Your task to perform on an android device: toggle data saver in the chrome app Image 0: 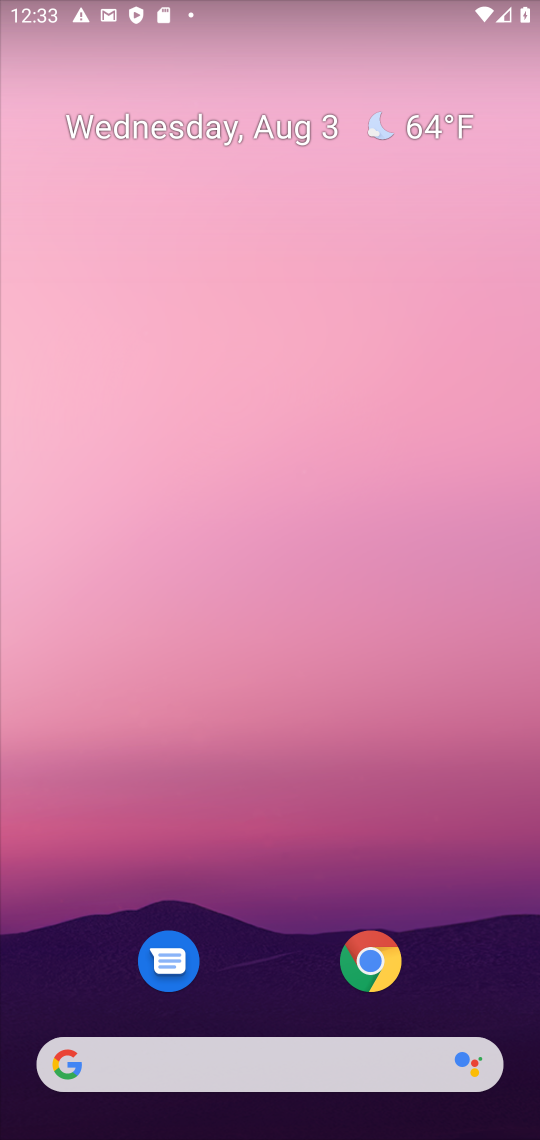
Step 0: click (362, 967)
Your task to perform on an android device: toggle data saver in the chrome app Image 1: 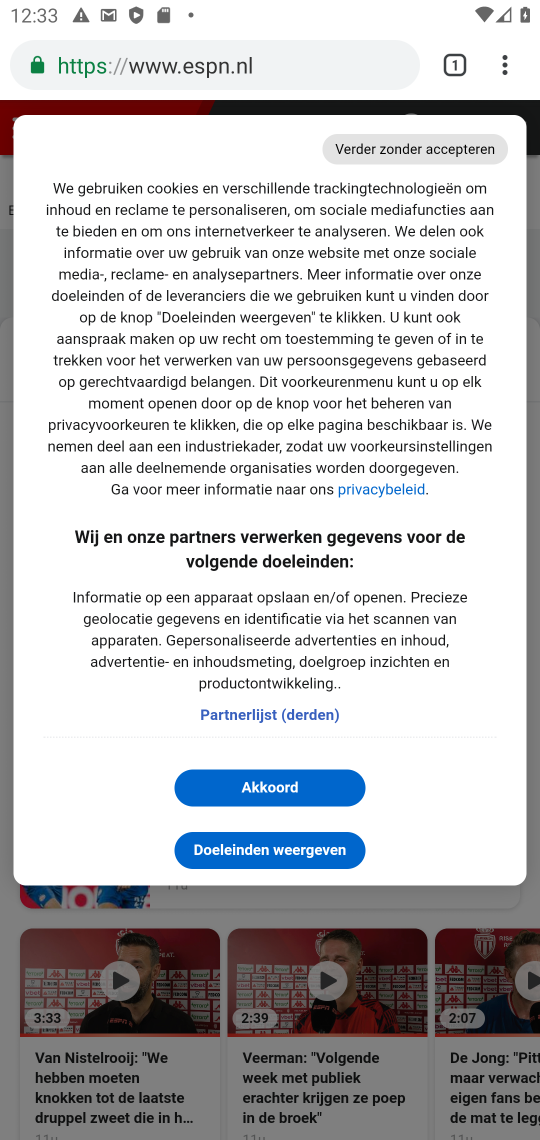
Step 1: drag from (508, 64) to (297, 785)
Your task to perform on an android device: toggle data saver in the chrome app Image 2: 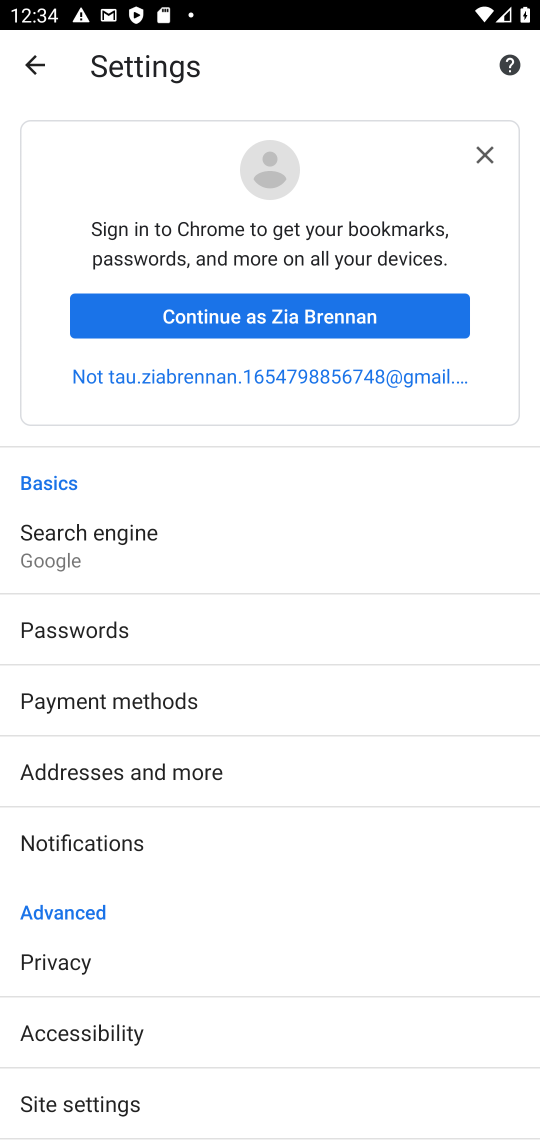
Step 2: drag from (279, 1025) to (282, 491)
Your task to perform on an android device: toggle data saver in the chrome app Image 3: 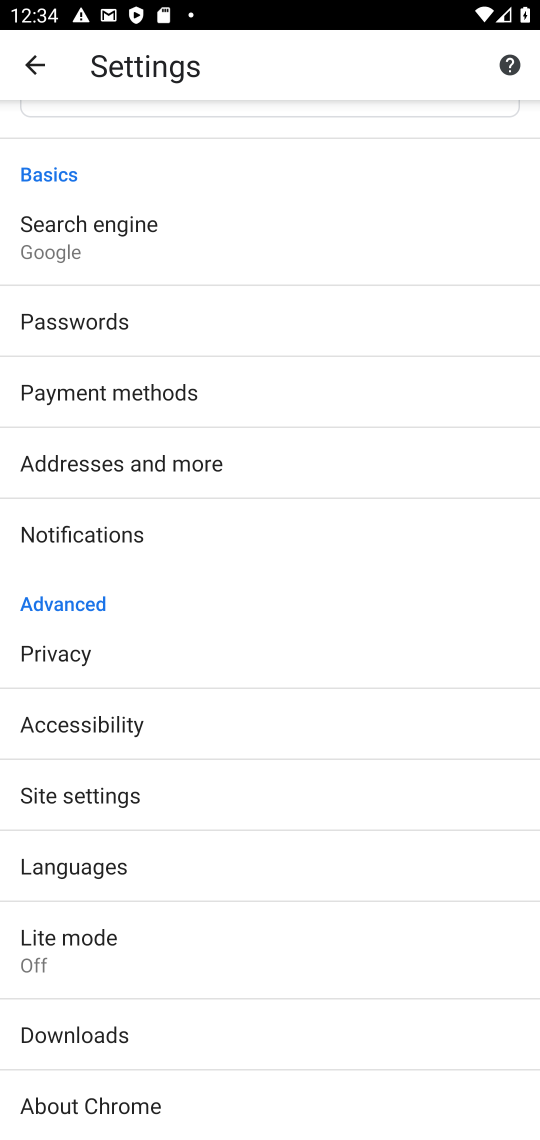
Step 3: click (72, 939)
Your task to perform on an android device: toggle data saver in the chrome app Image 4: 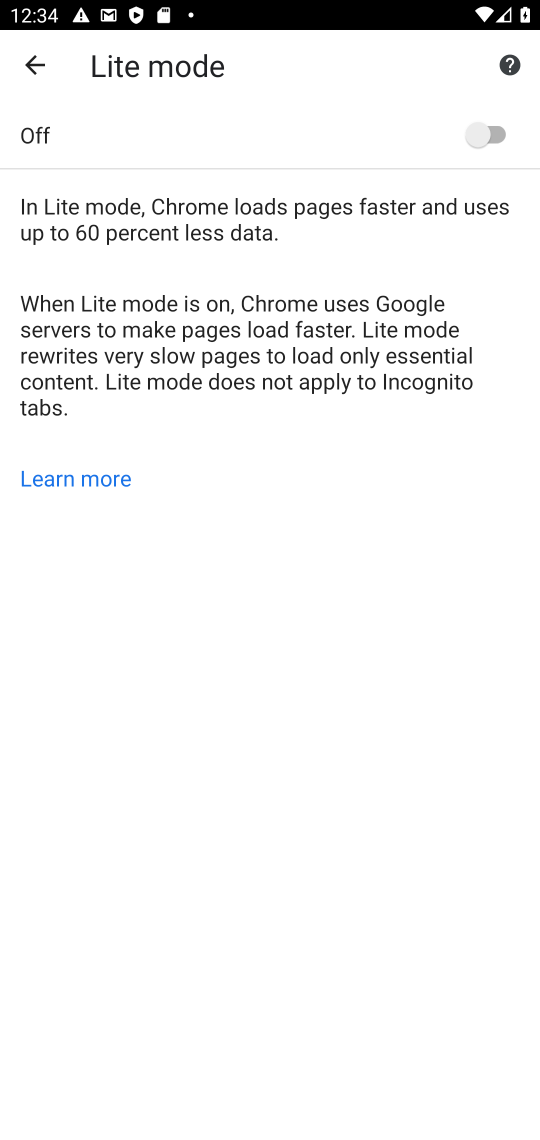
Step 4: click (487, 125)
Your task to perform on an android device: toggle data saver in the chrome app Image 5: 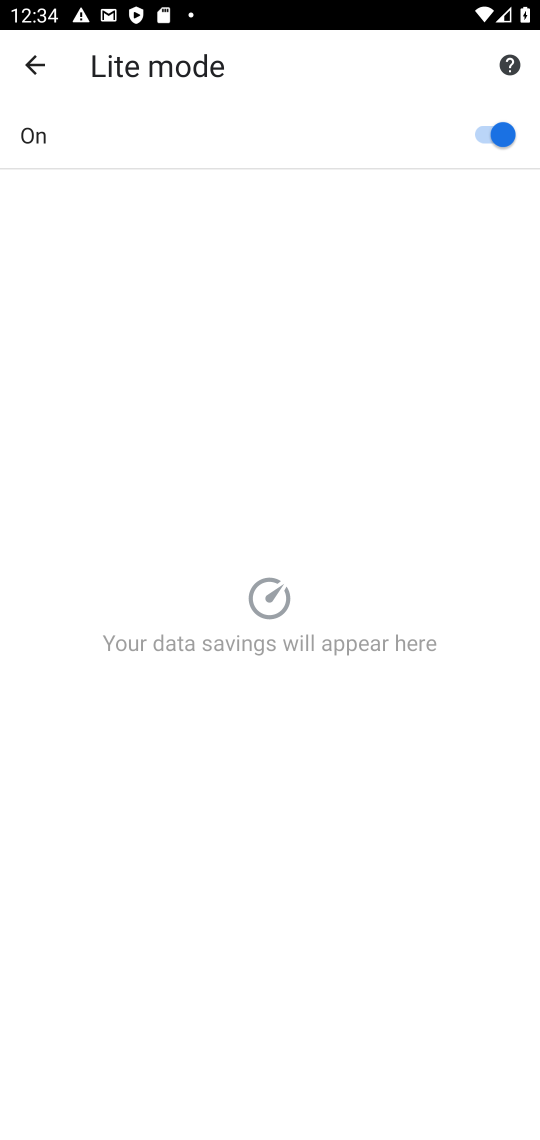
Step 5: task complete